Your task to perform on an android device: turn on wifi Image 0: 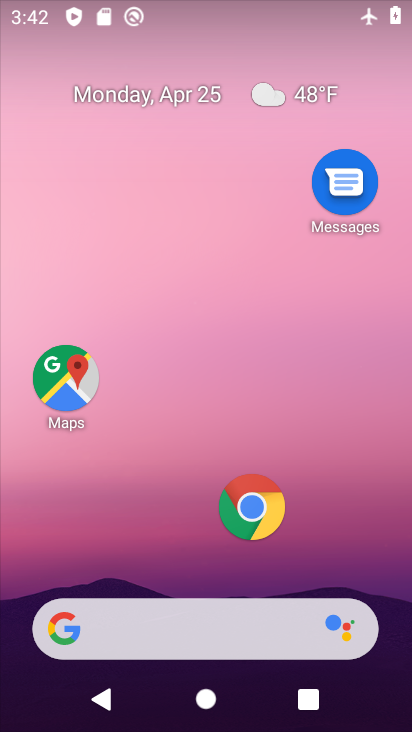
Step 0: drag from (147, 434) to (198, 169)
Your task to perform on an android device: turn on wifi Image 1: 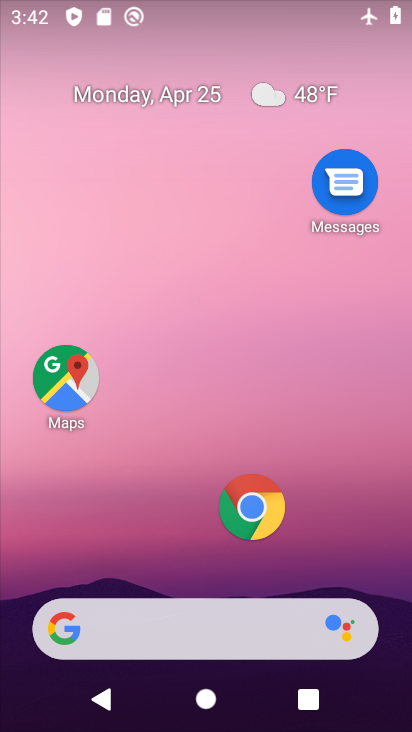
Step 1: drag from (131, 594) to (182, 101)
Your task to perform on an android device: turn on wifi Image 2: 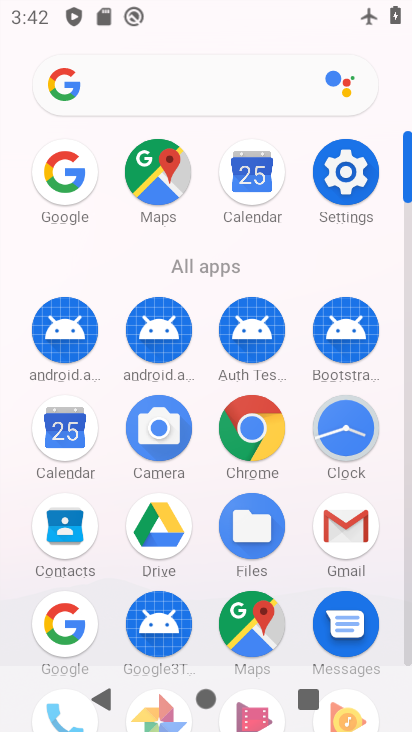
Step 2: click (359, 173)
Your task to perform on an android device: turn on wifi Image 3: 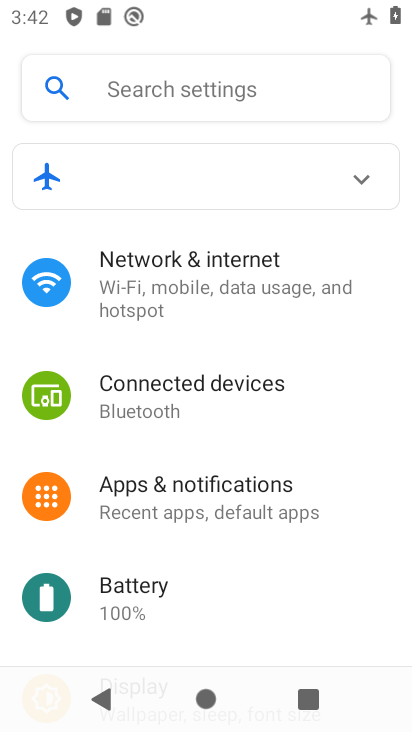
Step 3: click (263, 292)
Your task to perform on an android device: turn on wifi Image 4: 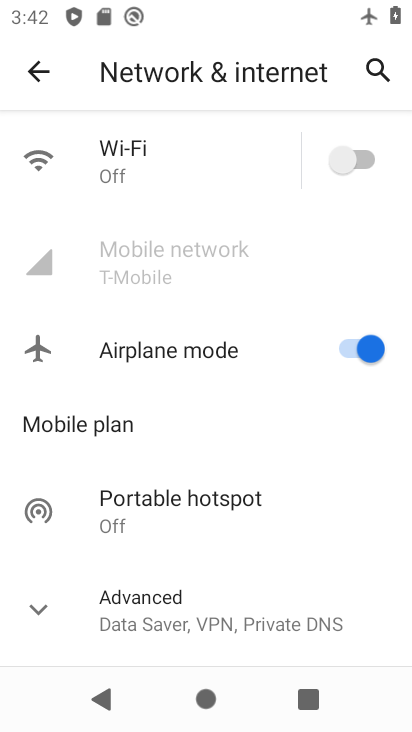
Step 4: click (373, 160)
Your task to perform on an android device: turn on wifi Image 5: 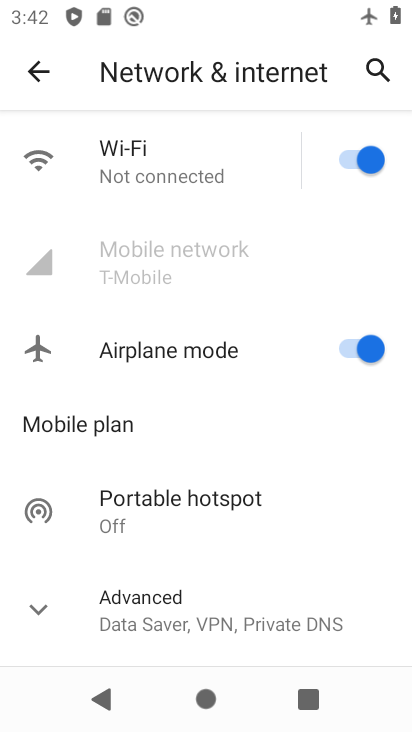
Step 5: task complete